Your task to perform on an android device: Go to Google maps Image 0: 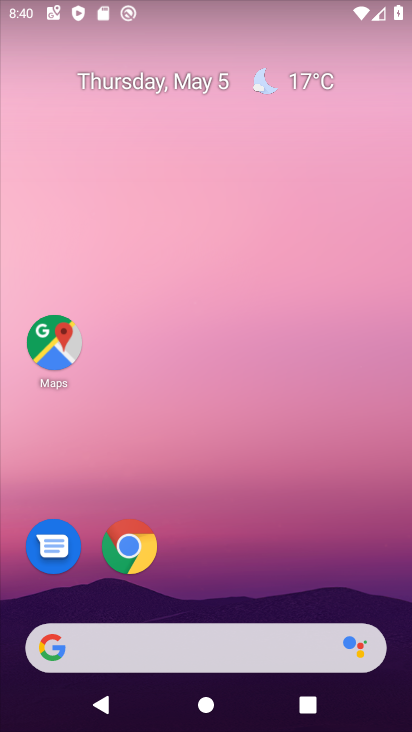
Step 0: drag from (202, 645) to (358, 73)
Your task to perform on an android device: Go to Google maps Image 1: 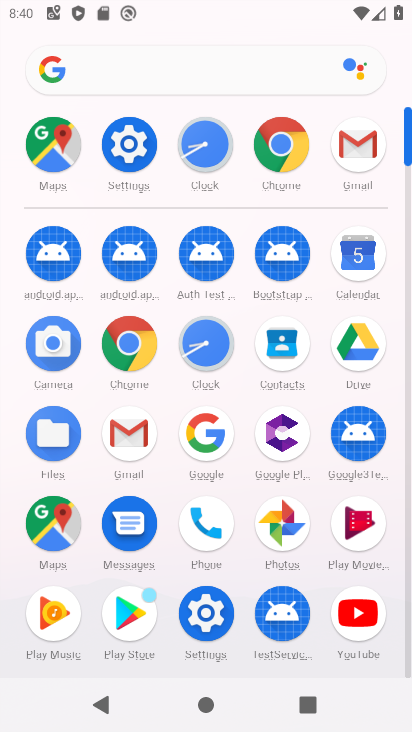
Step 1: click (41, 540)
Your task to perform on an android device: Go to Google maps Image 2: 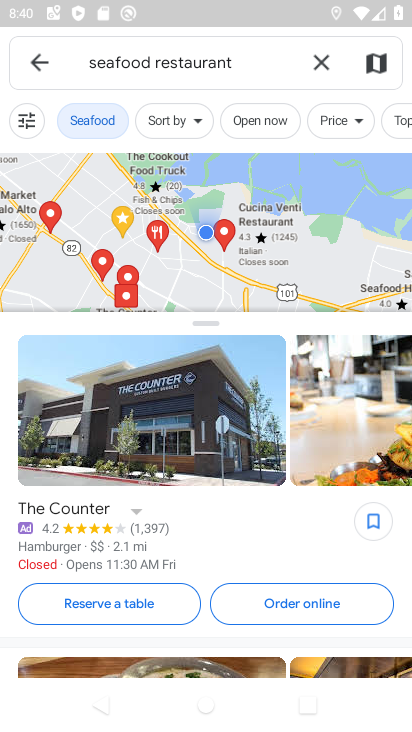
Step 2: click (46, 60)
Your task to perform on an android device: Go to Google maps Image 3: 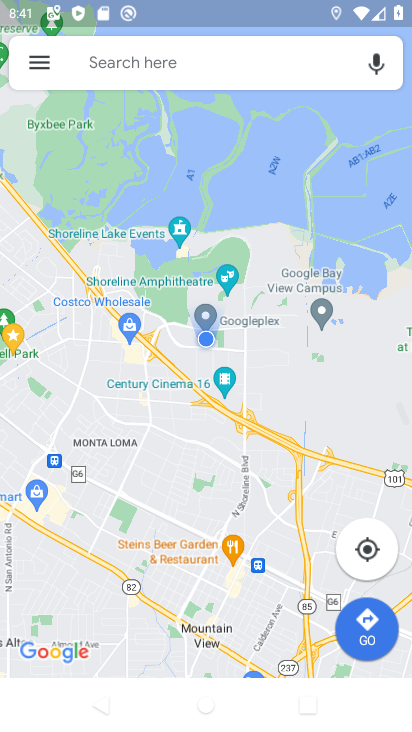
Step 3: task complete